Your task to perform on an android device: Open Google Image 0: 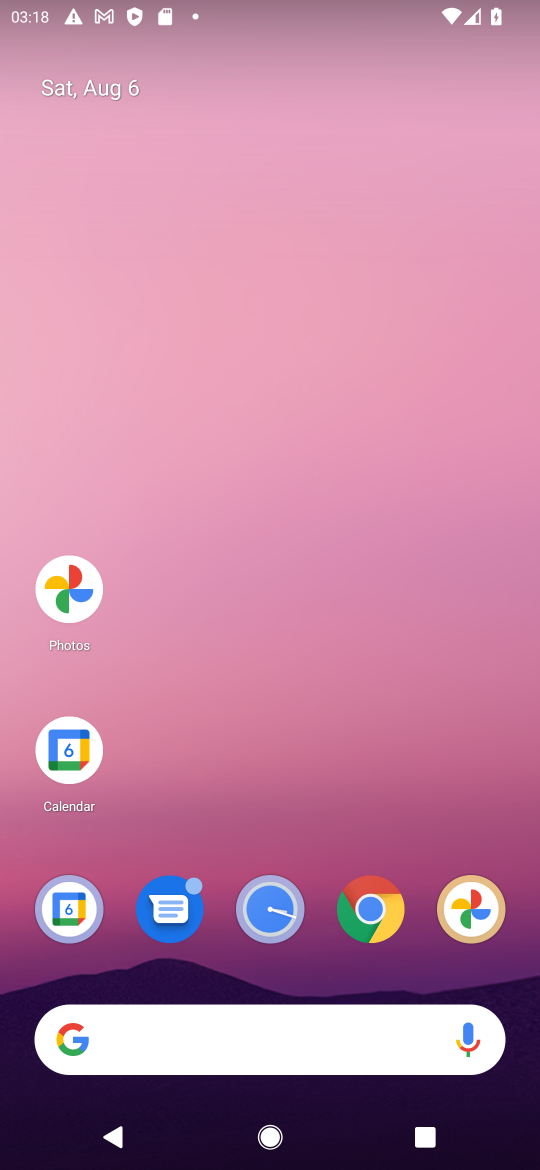
Step 0: click (67, 1037)
Your task to perform on an android device: Open Google Image 1: 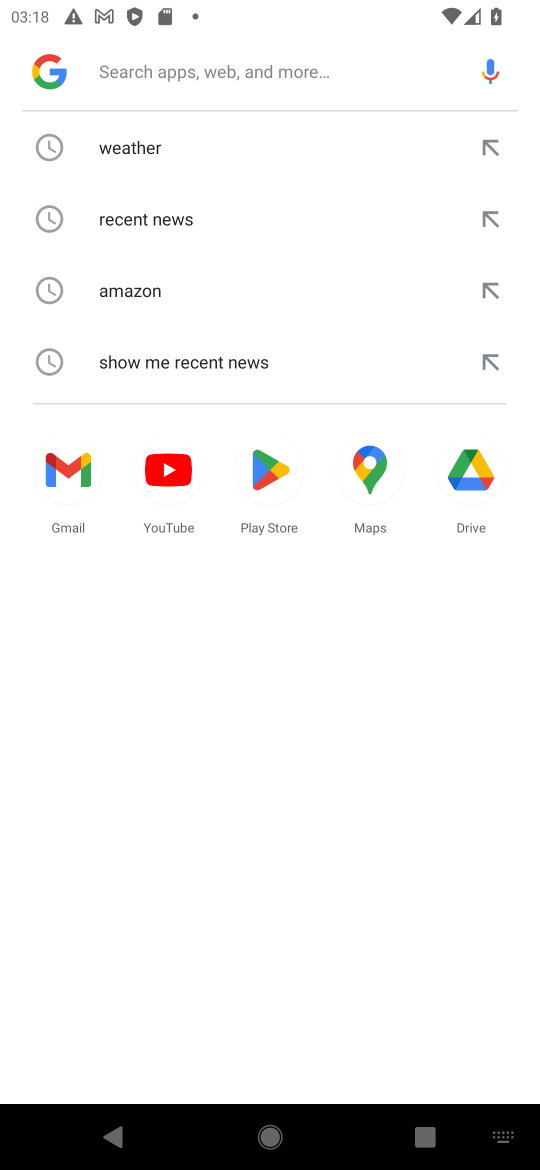
Step 1: click (47, 74)
Your task to perform on an android device: Open Google Image 2: 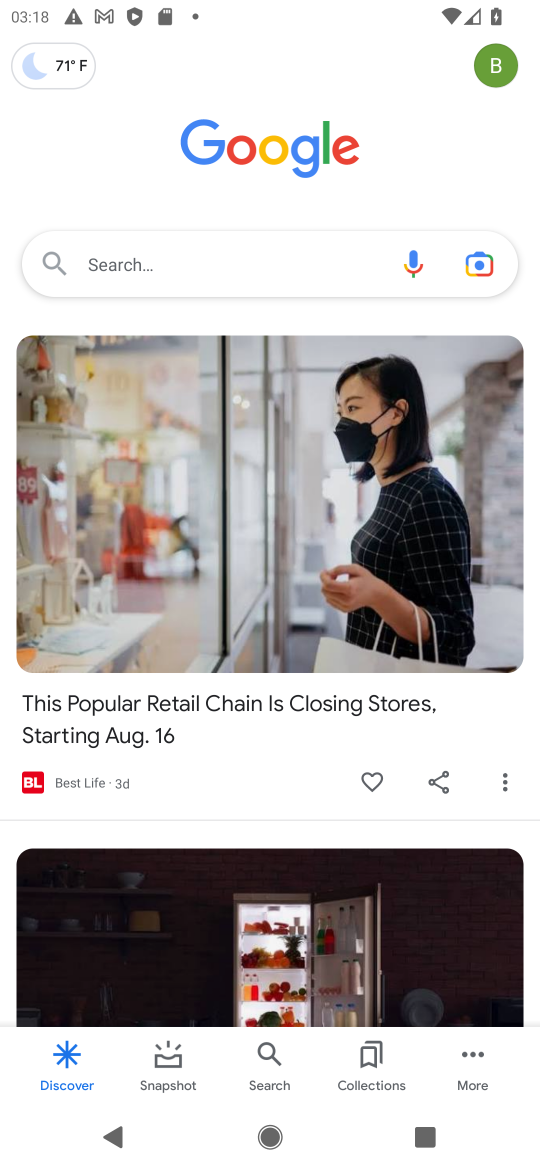
Step 2: task complete